Your task to perform on an android device: Show the shopping cart on bestbuy. Image 0: 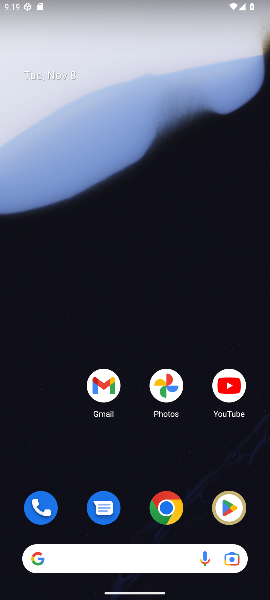
Step 0: click (168, 510)
Your task to perform on an android device: Show the shopping cart on bestbuy. Image 1: 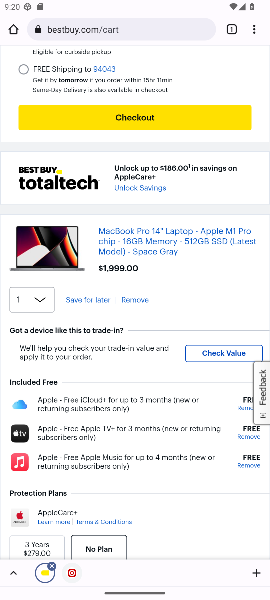
Step 1: click (65, 28)
Your task to perform on an android device: Show the shopping cart on bestbuy. Image 2: 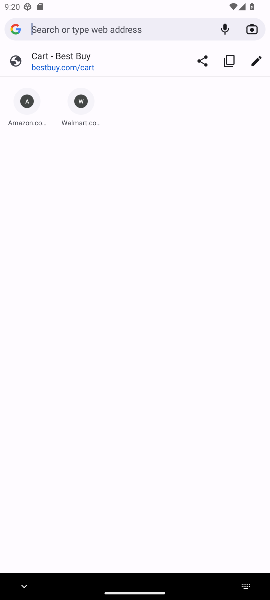
Step 2: type "bestbuy"
Your task to perform on an android device: Show the shopping cart on bestbuy. Image 3: 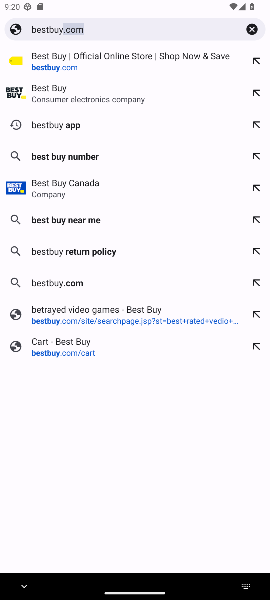
Step 3: click (49, 96)
Your task to perform on an android device: Show the shopping cart on bestbuy. Image 4: 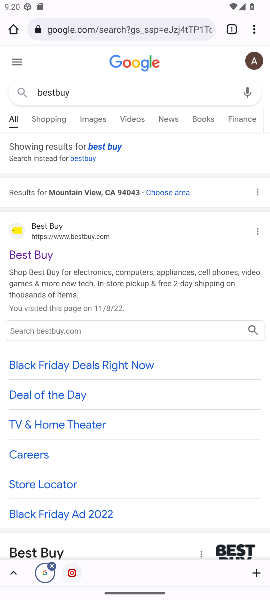
Step 4: click (35, 258)
Your task to perform on an android device: Show the shopping cart on bestbuy. Image 5: 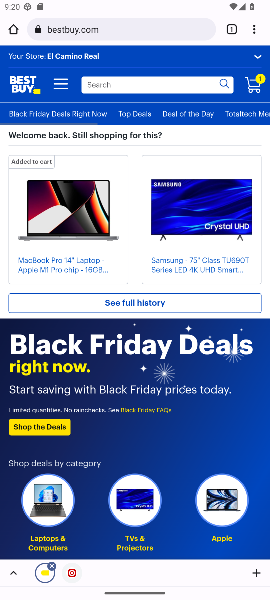
Step 5: click (256, 80)
Your task to perform on an android device: Show the shopping cart on bestbuy. Image 6: 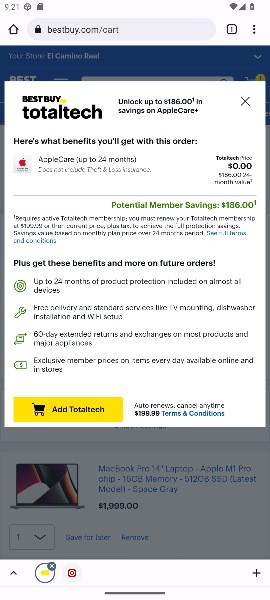
Step 6: click (244, 98)
Your task to perform on an android device: Show the shopping cart on bestbuy. Image 7: 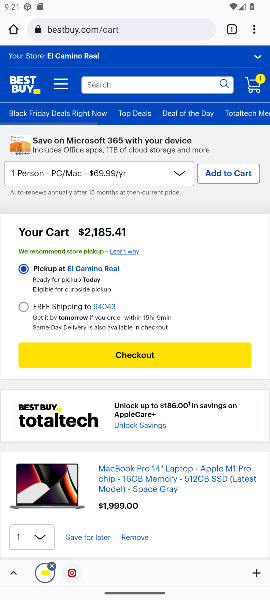
Step 7: drag from (217, 467) to (188, 294)
Your task to perform on an android device: Show the shopping cart on bestbuy. Image 8: 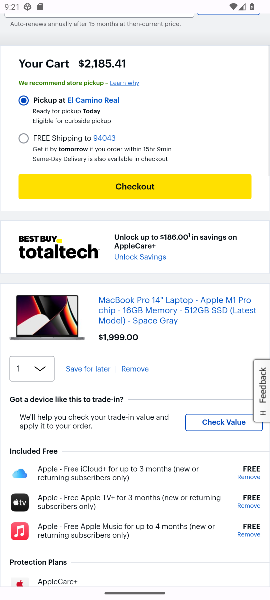
Step 8: click (134, 369)
Your task to perform on an android device: Show the shopping cart on bestbuy. Image 9: 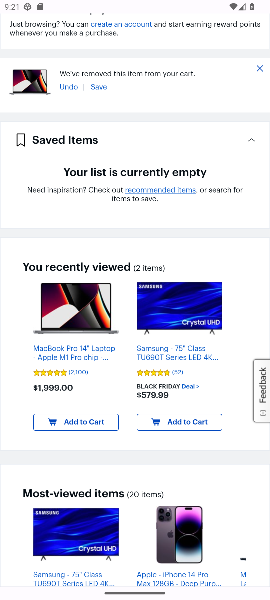
Step 9: task complete